Your task to perform on an android device: find which apps use the phone's location Image 0: 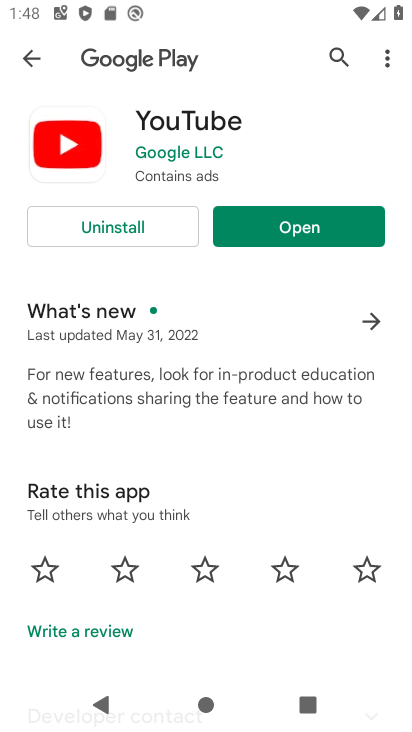
Step 0: click (341, 241)
Your task to perform on an android device: find which apps use the phone's location Image 1: 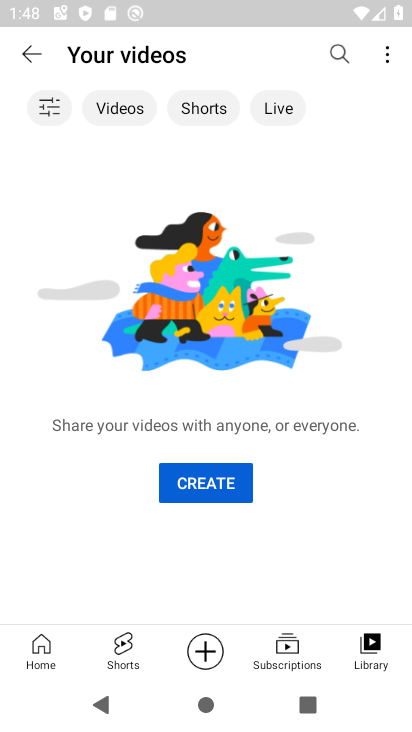
Step 1: task complete